Your task to perform on an android device: open a new tab in the chrome app Image 0: 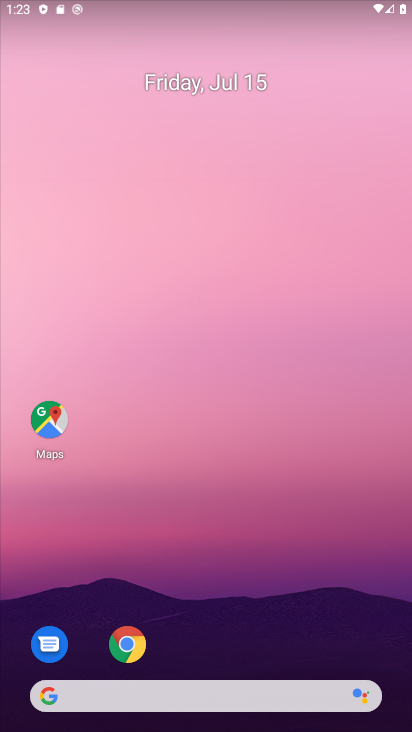
Step 0: drag from (390, 666) to (251, 42)
Your task to perform on an android device: open a new tab in the chrome app Image 1: 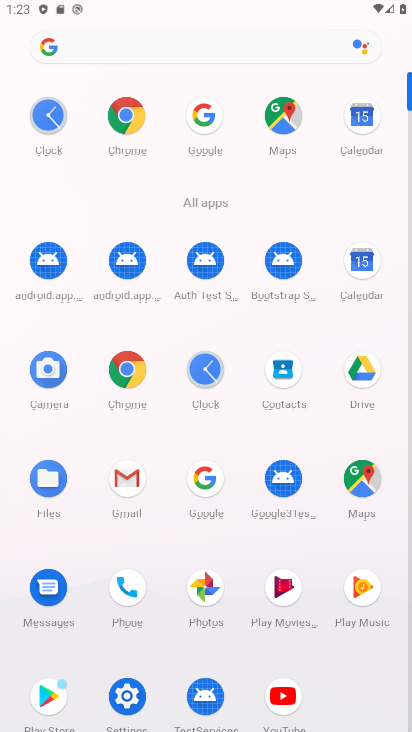
Step 1: click (130, 114)
Your task to perform on an android device: open a new tab in the chrome app Image 2: 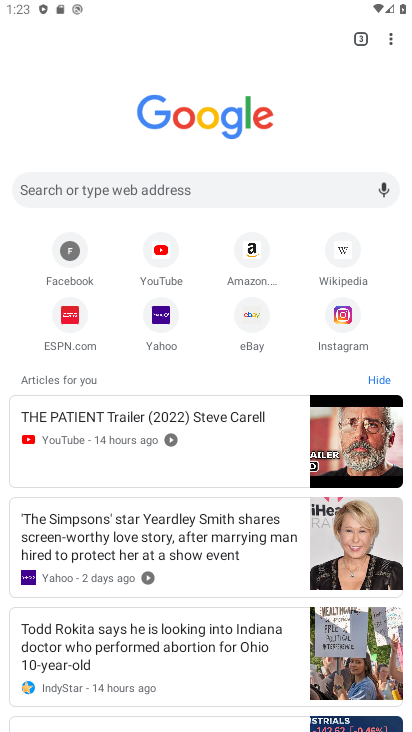
Step 2: click (391, 34)
Your task to perform on an android device: open a new tab in the chrome app Image 3: 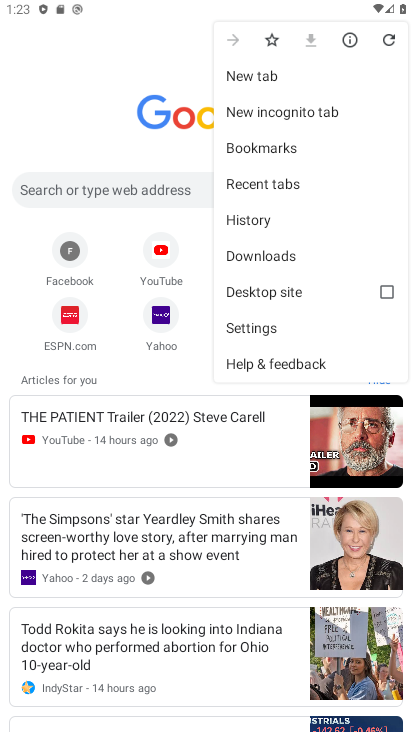
Step 3: click (275, 74)
Your task to perform on an android device: open a new tab in the chrome app Image 4: 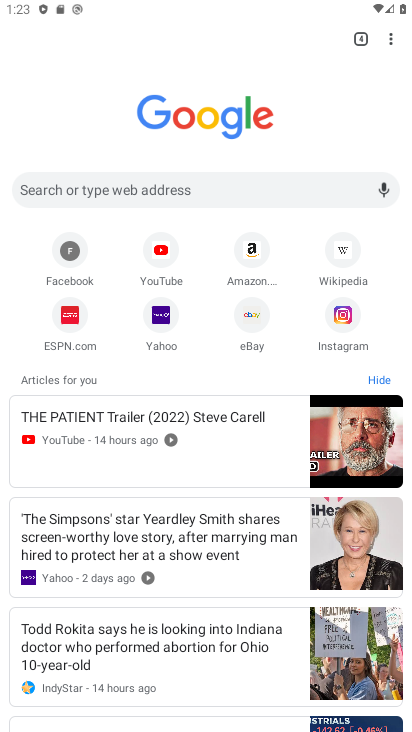
Step 4: task complete